Your task to perform on an android device: Go to settings Image 0: 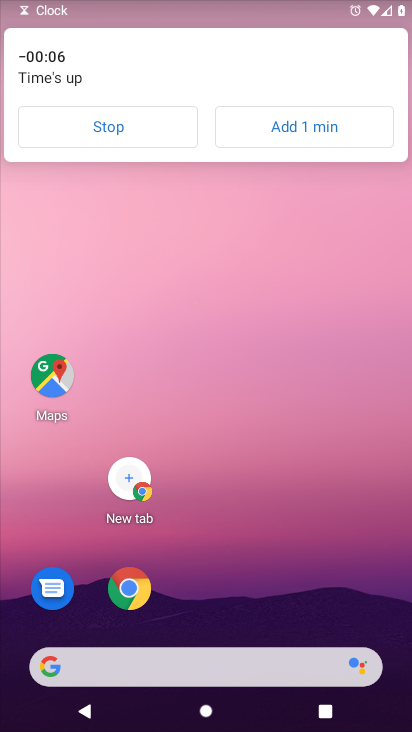
Step 0: click (130, 142)
Your task to perform on an android device: Go to settings Image 1: 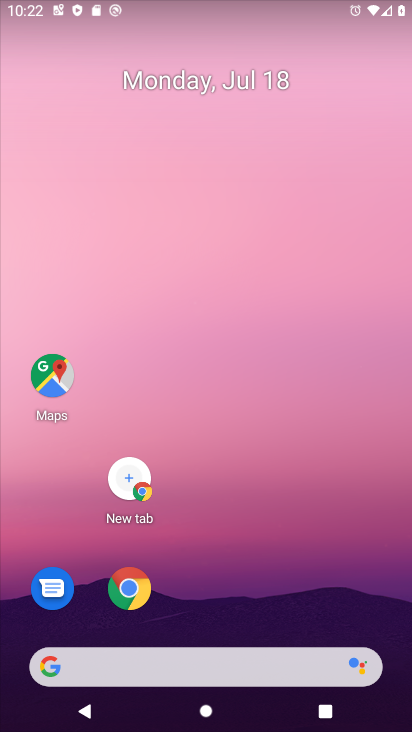
Step 1: drag from (232, 588) to (234, 63)
Your task to perform on an android device: Go to settings Image 2: 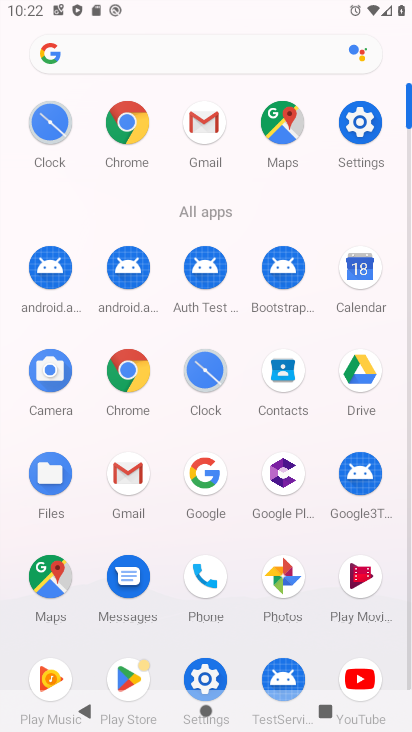
Step 2: click (376, 125)
Your task to perform on an android device: Go to settings Image 3: 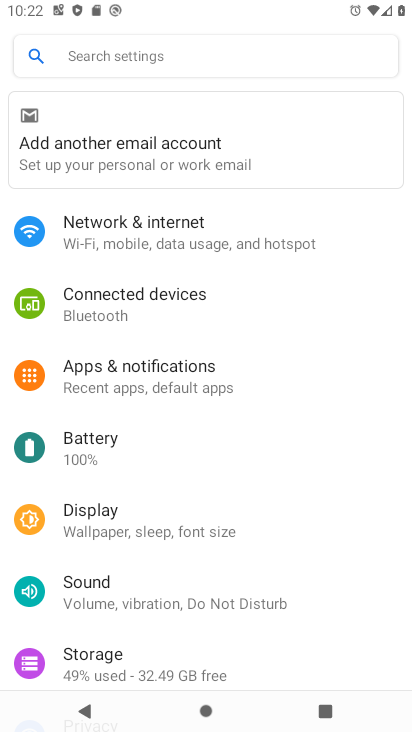
Step 3: task complete